Your task to perform on an android device: turn on priority inbox in the gmail app Image 0: 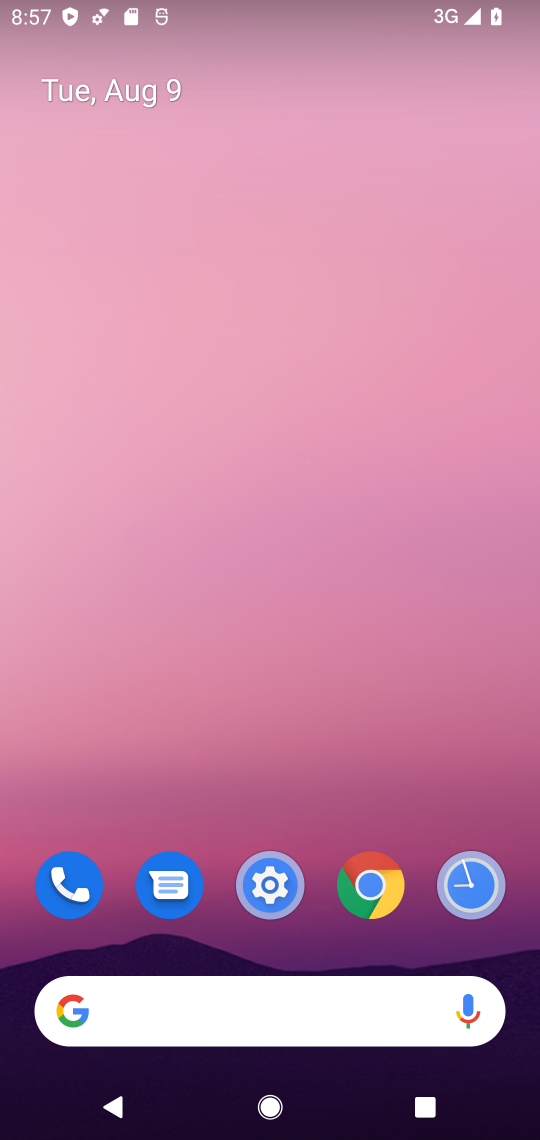
Step 0: press home button
Your task to perform on an android device: turn on priority inbox in the gmail app Image 1: 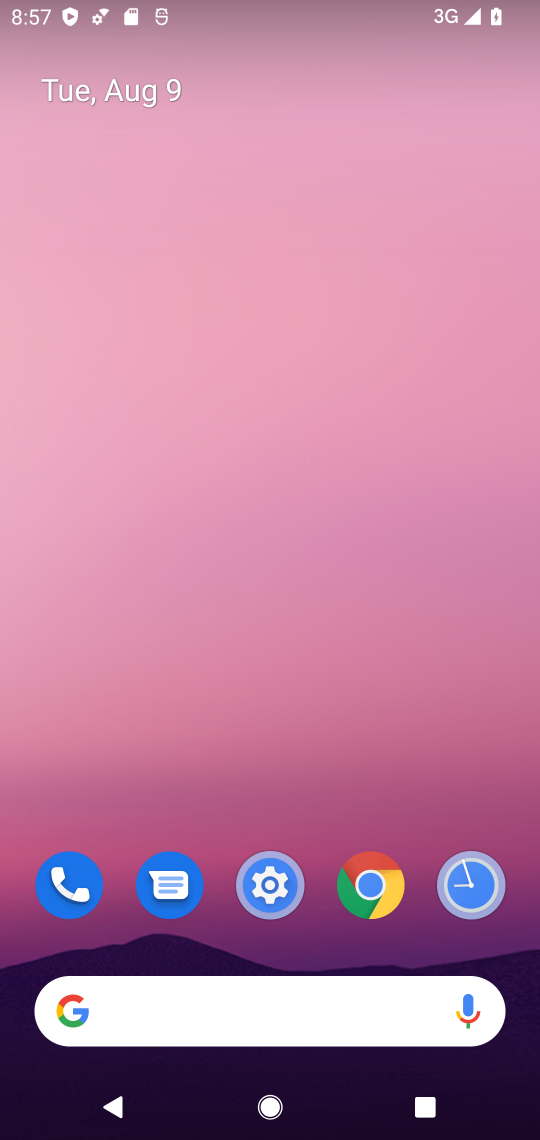
Step 1: drag from (323, 950) to (397, 83)
Your task to perform on an android device: turn on priority inbox in the gmail app Image 2: 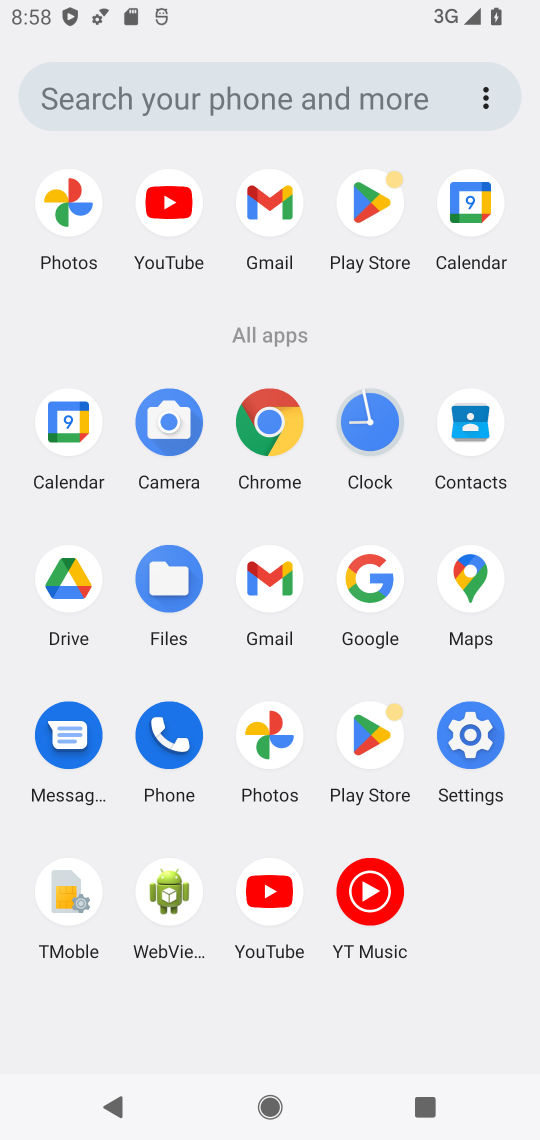
Step 2: click (268, 573)
Your task to perform on an android device: turn on priority inbox in the gmail app Image 3: 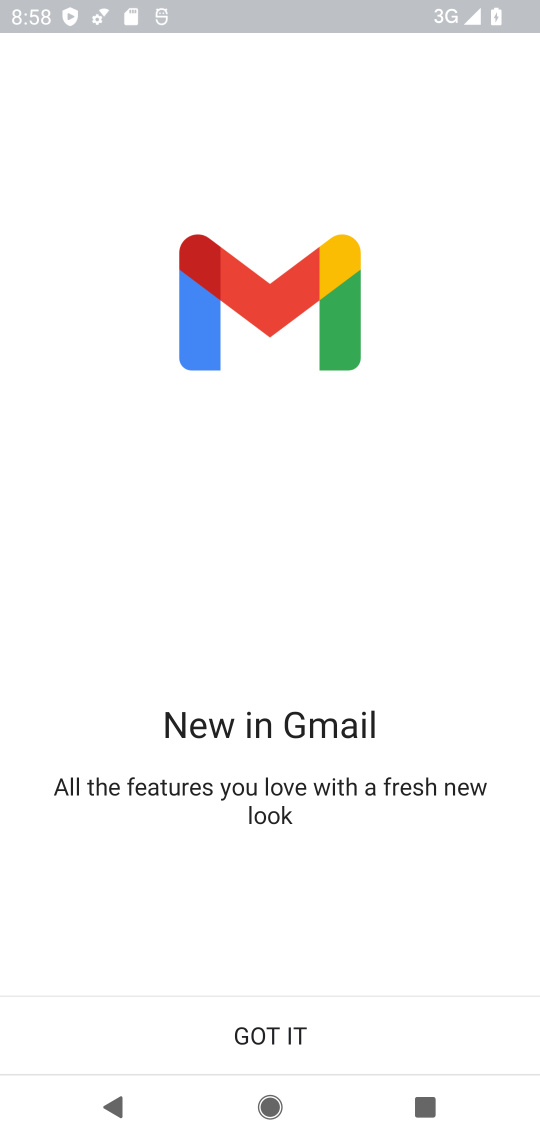
Step 3: click (279, 1043)
Your task to perform on an android device: turn on priority inbox in the gmail app Image 4: 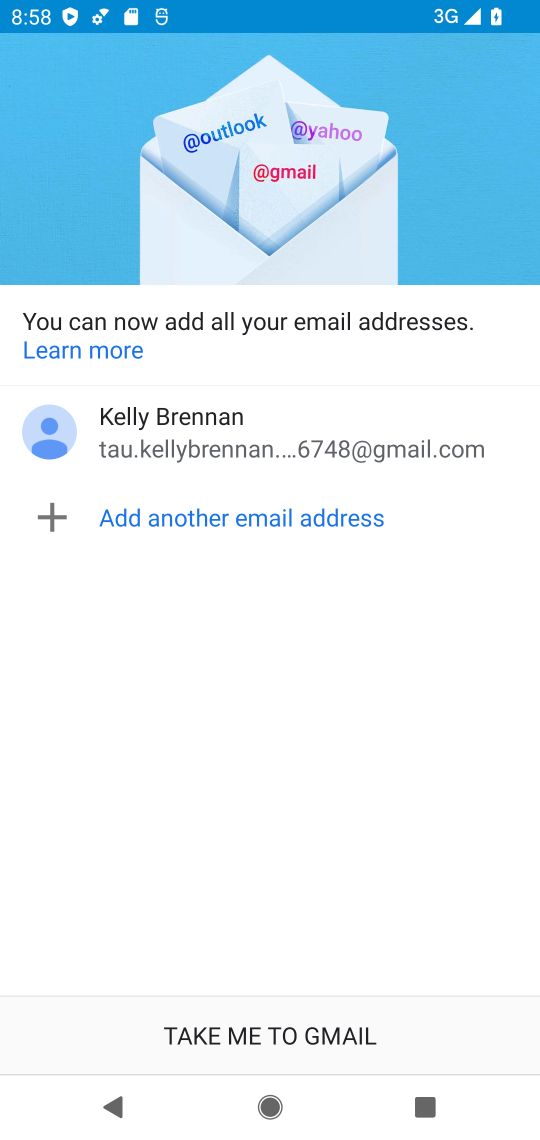
Step 4: click (261, 1045)
Your task to perform on an android device: turn on priority inbox in the gmail app Image 5: 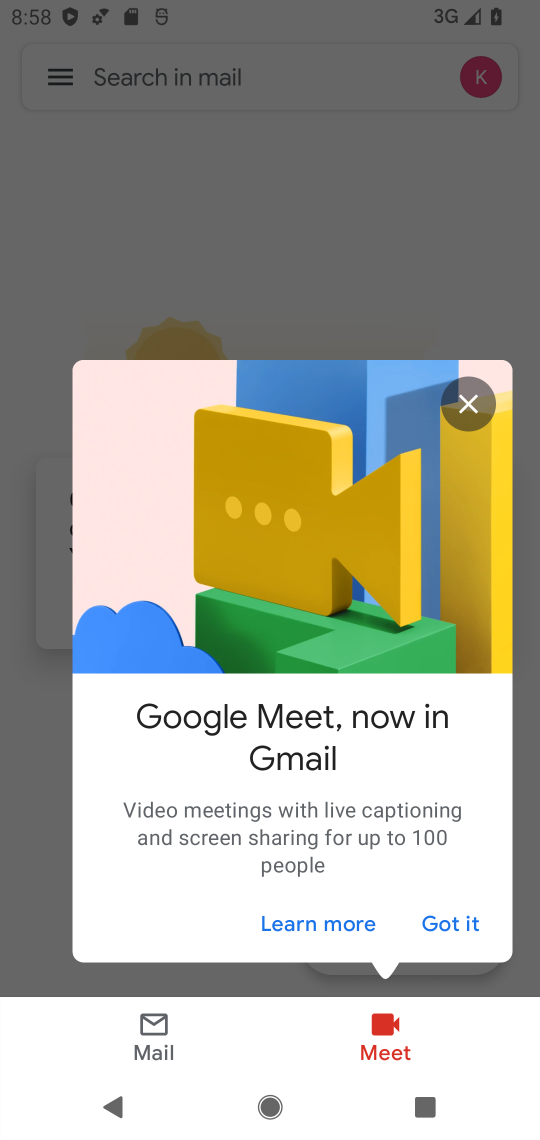
Step 5: click (459, 912)
Your task to perform on an android device: turn on priority inbox in the gmail app Image 6: 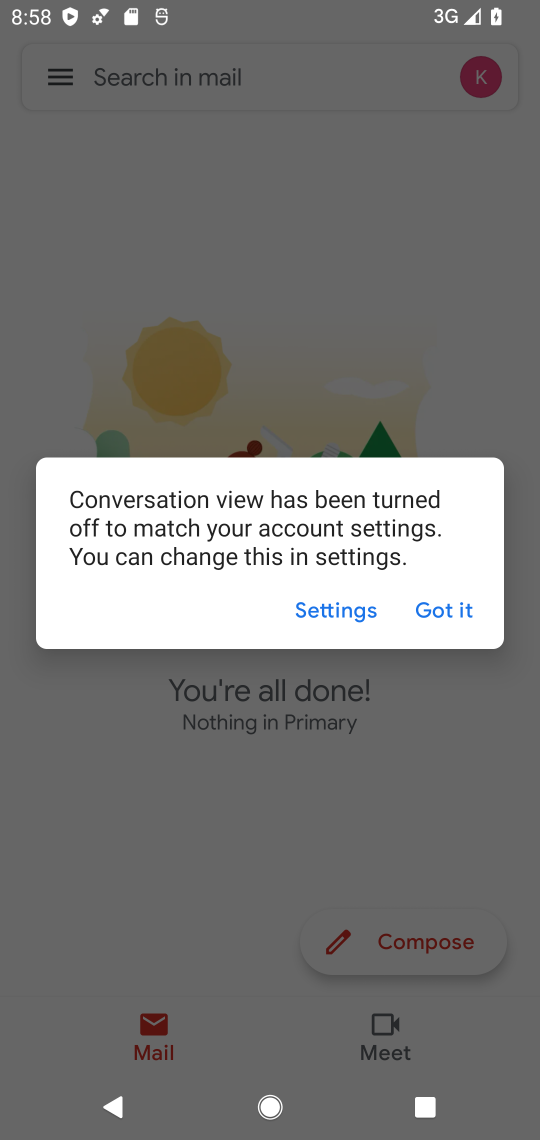
Step 6: click (442, 604)
Your task to perform on an android device: turn on priority inbox in the gmail app Image 7: 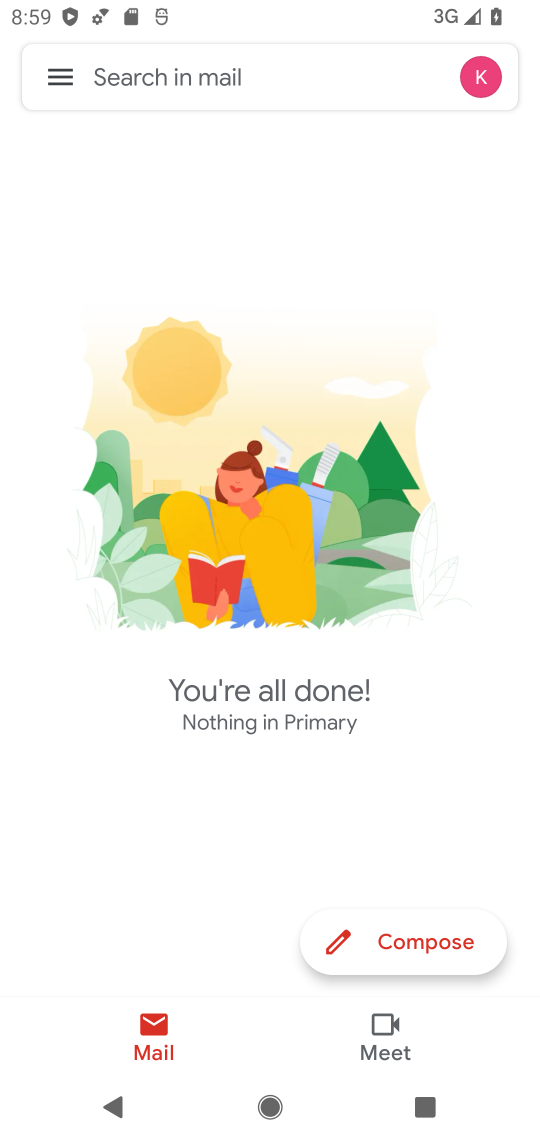
Step 7: click (58, 67)
Your task to perform on an android device: turn on priority inbox in the gmail app Image 8: 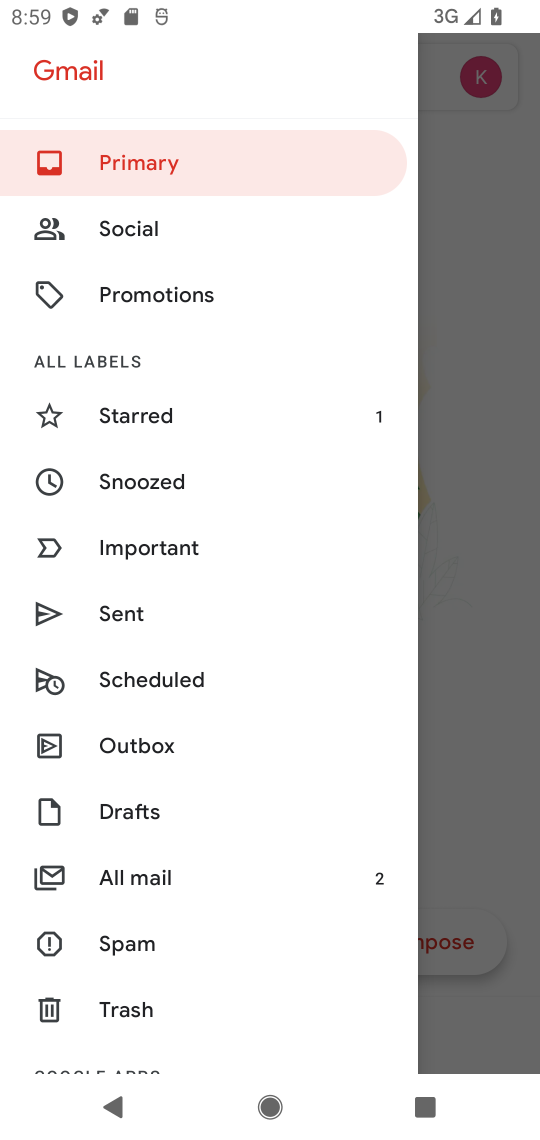
Step 8: drag from (148, 996) to (311, 124)
Your task to perform on an android device: turn on priority inbox in the gmail app Image 9: 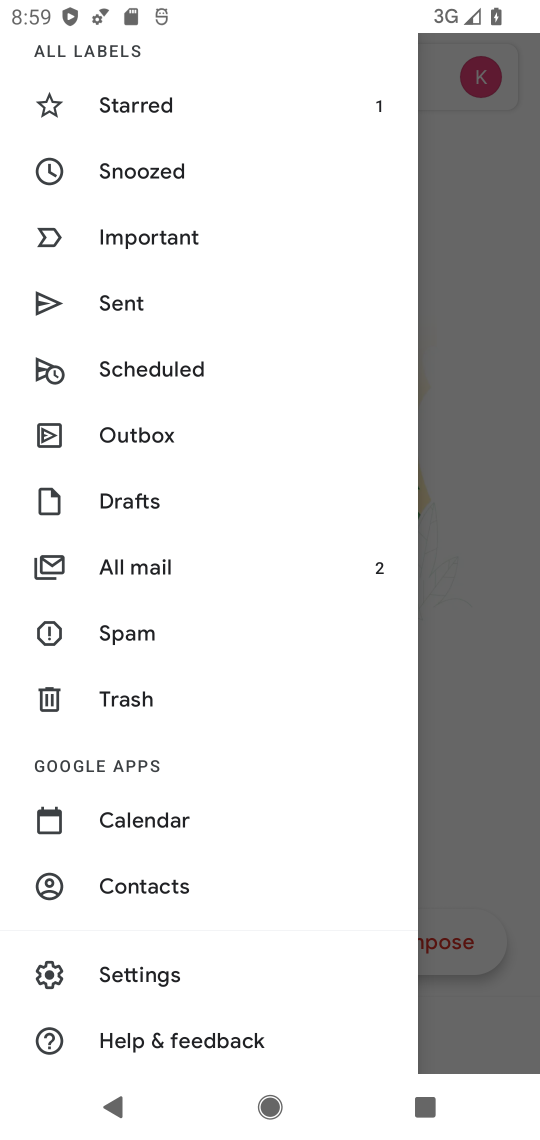
Step 9: click (184, 972)
Your task to perform on an android device: turn on priority inbox in the gmail app Image 10: 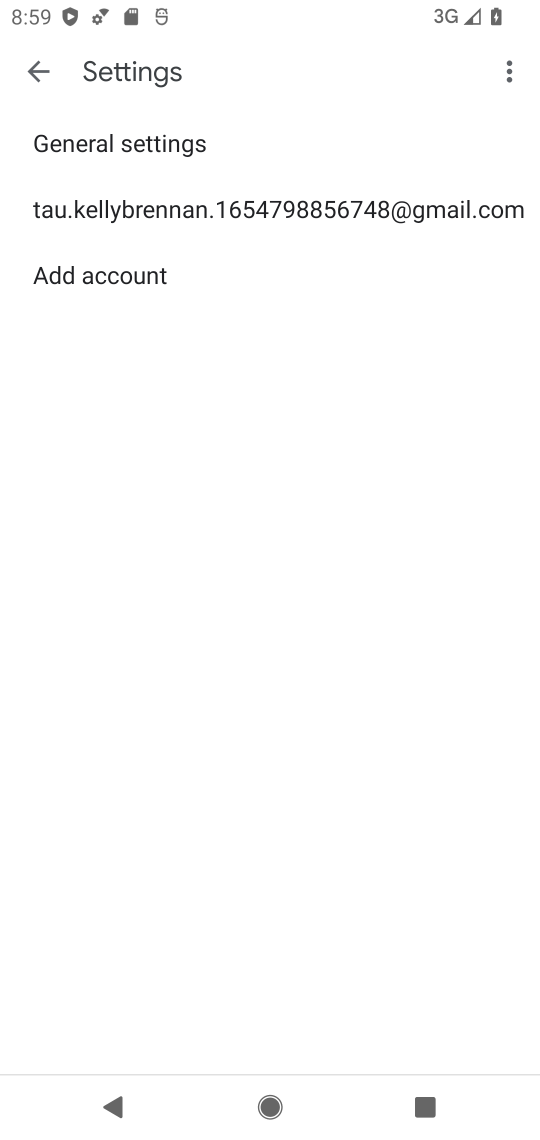
Step 10: click (247, 206)
Your task to perform on an android device: turn on priority inbox in the gmail app Image 11: 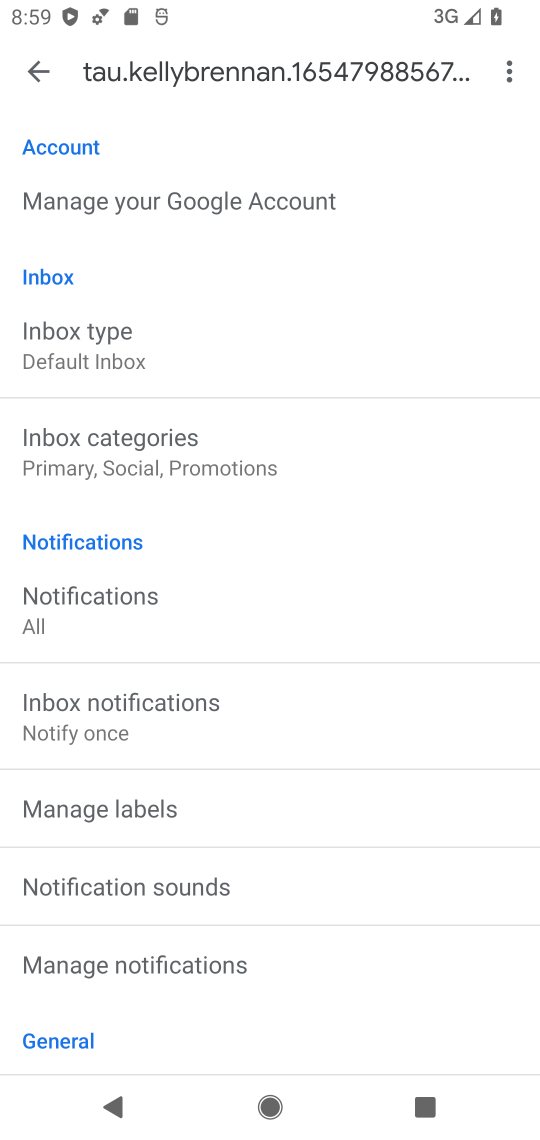
Step 11: drag from (247, 981) to (333, 347)
Your task to perform on an android device: turn on priority inbox in the gmail app Image 12: 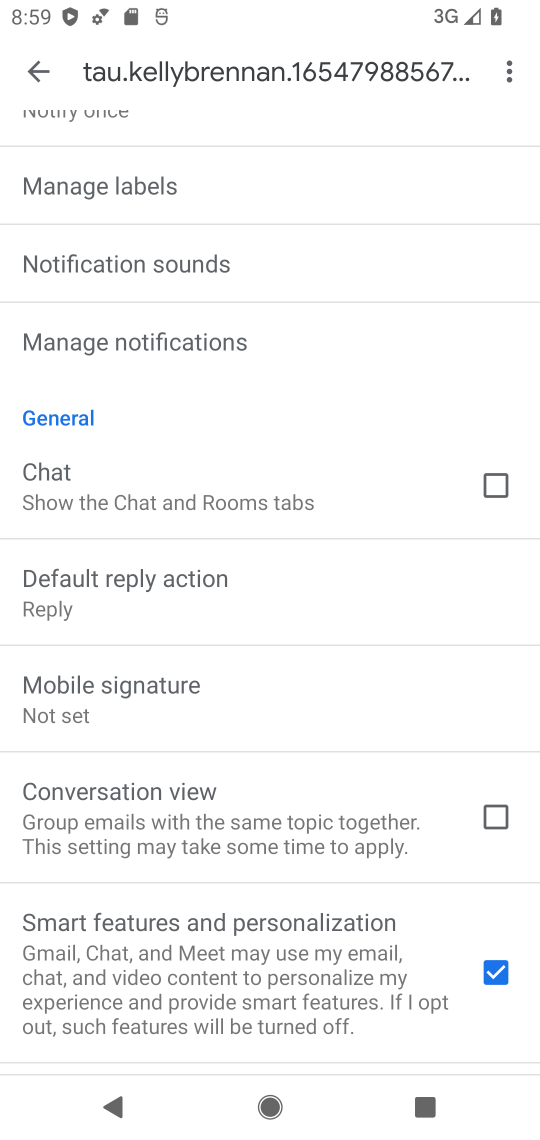
Step 12: drag from (229, 271) to (216, 974)
Your task to perform on an android device: turn on priority inbox in the gmail app Image 13: 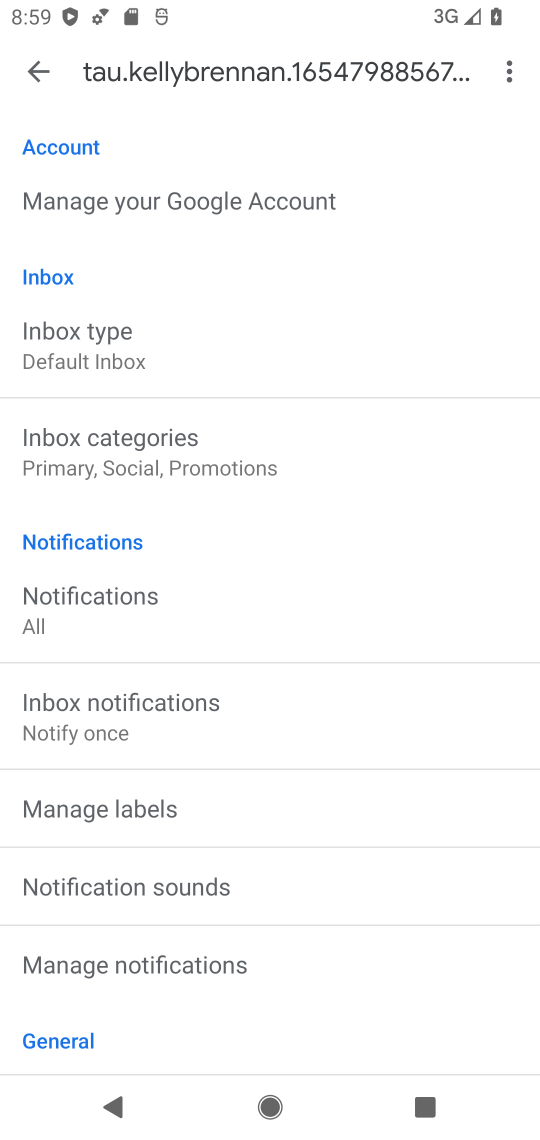
Step 13: drag from (201, 486) to (227, 837)
Your task to perform on an android device: turn on priority inbox in the gmail app Image 14: 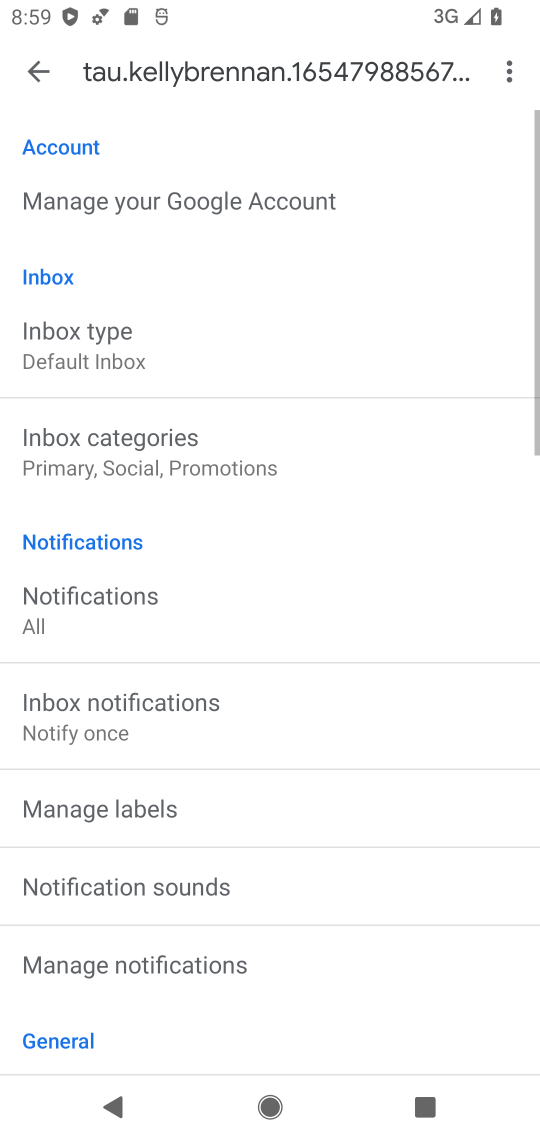
Step 14: click (153, 341)
Your task to perform on an android device: turn on priority inbox in the gmail app Image 15: 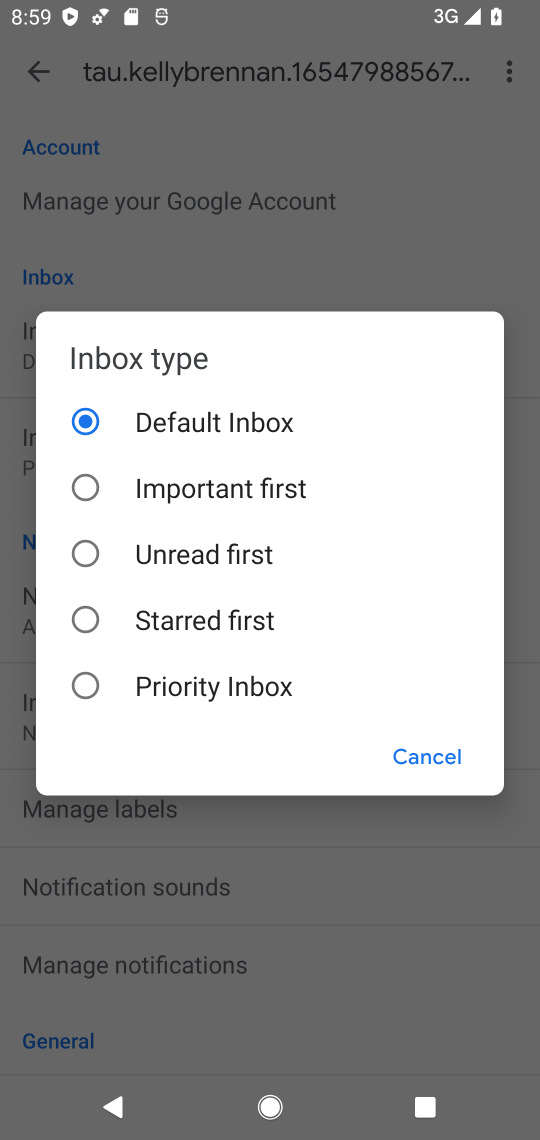
Step 15: click (80, 688)
Your task to perform on an android device: turn on priority inbox in the gmail app Image 16: 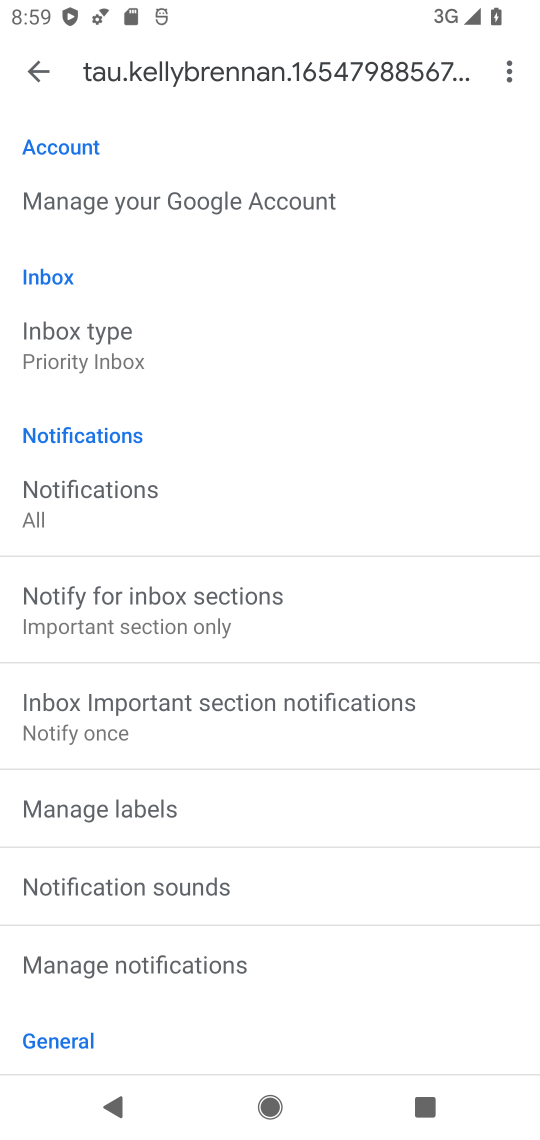
Step 16: task complete